Your task to perform on an android device: change the clock display to analog Image 0: 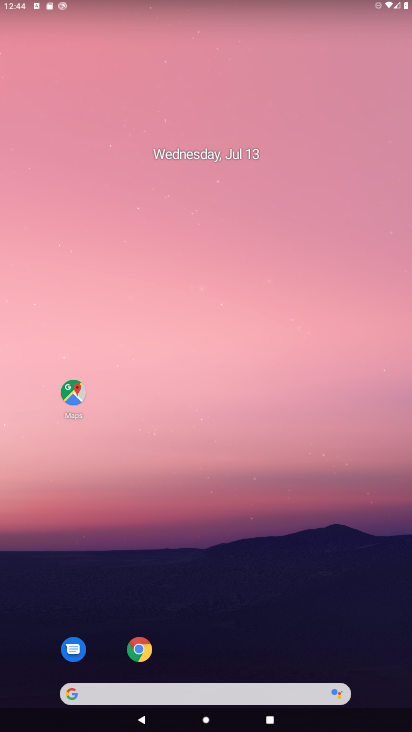
Step 0: drag from (382, 661) to (273, 10)
Your task to perform on an android device: change the clock display to analog Image 1: 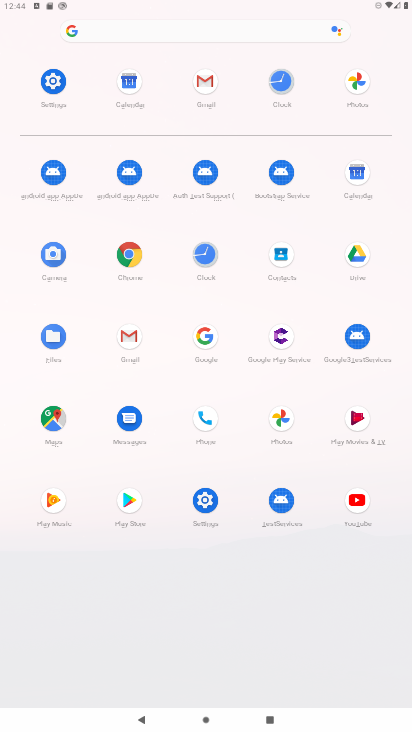
Step 1: click (205, 256)
Your task to perform on an android device: change the clock display to analog Image 2: 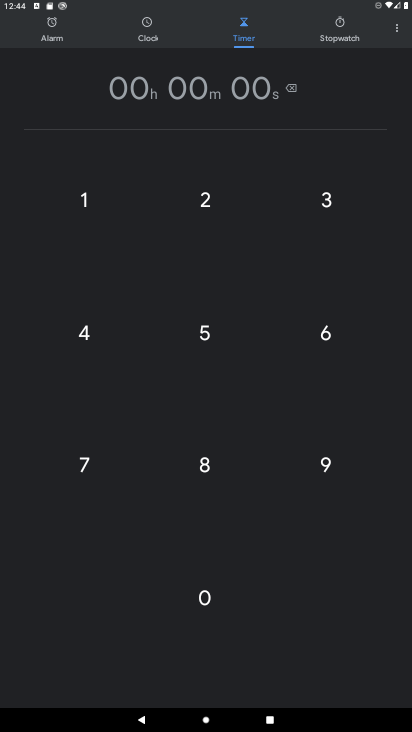
Step 2: click (398, 32)
Your task to perform on an android device: change the clock display to analog Image 3: 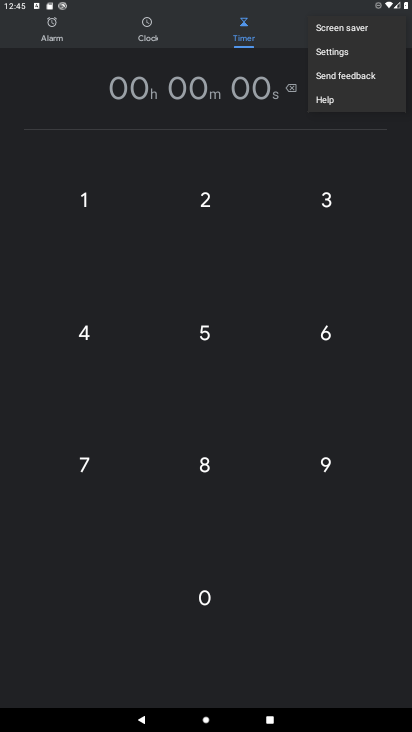
Step 3: click (324, 51)
Your task to perform on an android device: change the clock display to analog Image 4: 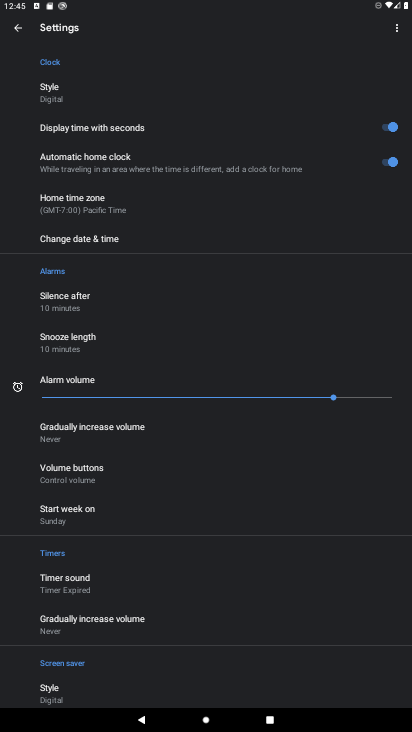
Step 4: click (47, 93)
Your task to perform on an android device: change the clock display to analog Image 5: 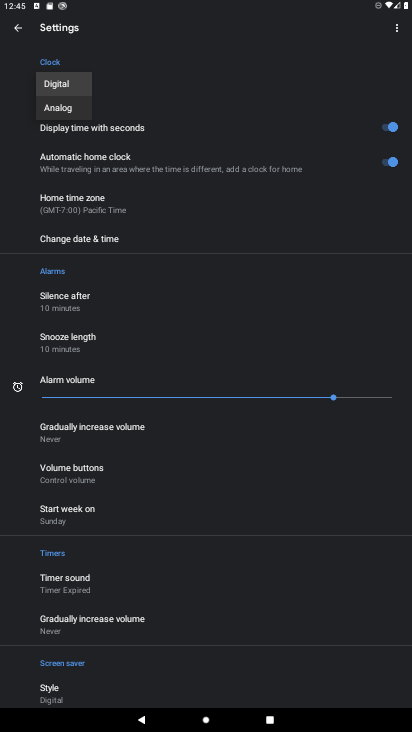
Step 5: click (62, 115)
Your task to perform on an android device: change the clock display to analog Image 6: 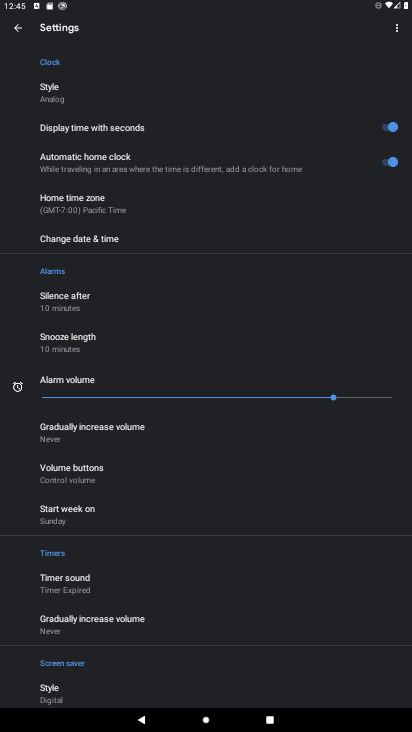
Step 6: task complete